Your task to perform on an android device: Open battery settings Image 0: 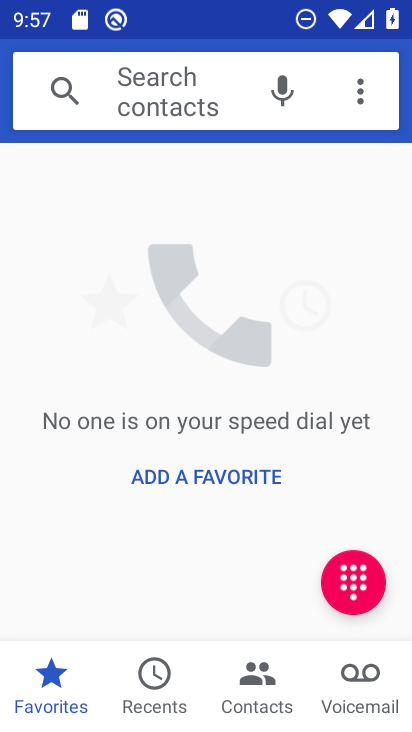
Step 0: press home button
Your task to perform on an android device: Open battery settings Image 1: 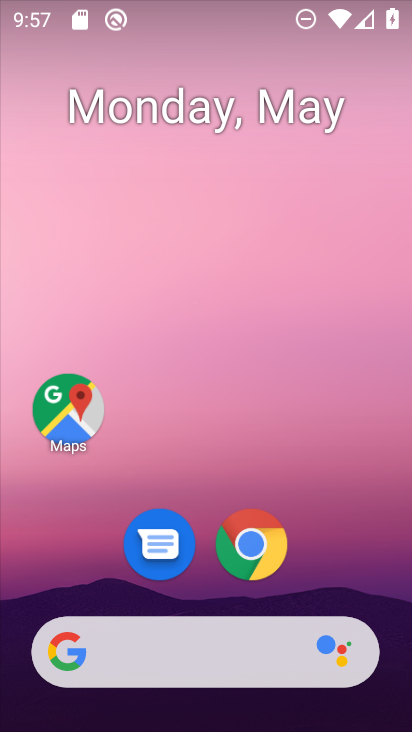
Step 1: drag from (340, 583) to (249, 111)
Your task to perform on an android device: Open battery settings Image 2: 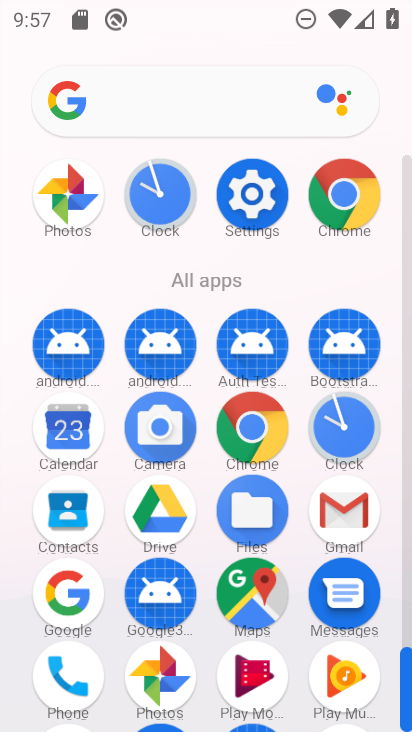
Step 2: click (258, 197)
Your task to perform on an android device: Open battery settings Image 3: 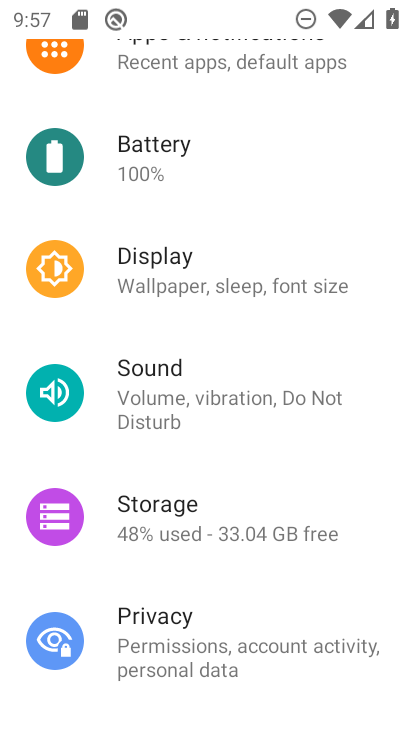
Step 3: click (149, 164)
Your task to perform on an android device: Open battery settings Image 4: 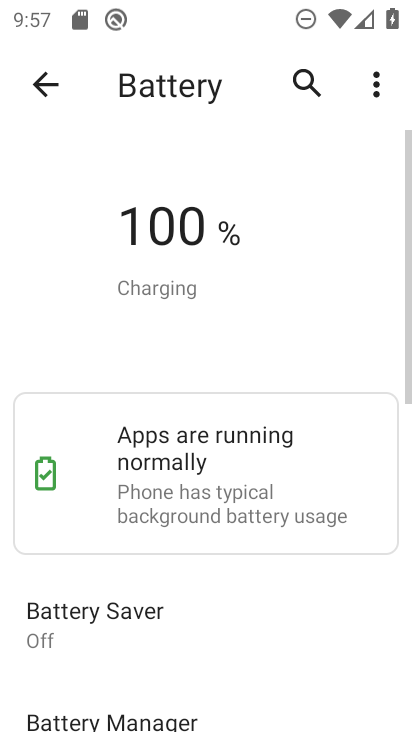
Step 4: task complete